Your task to perform on an android device: Check the weather Image 0: 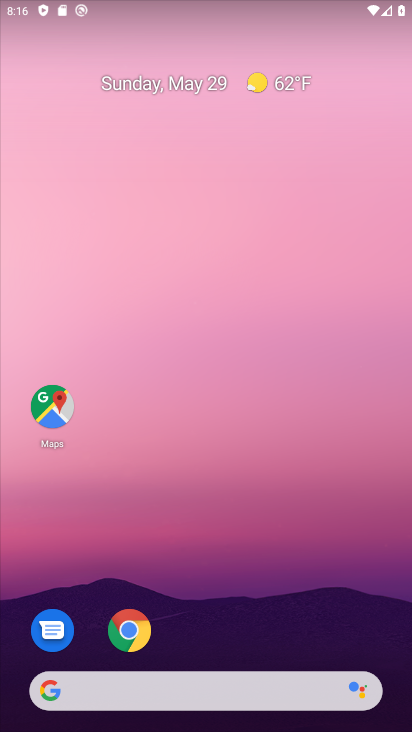
Step 0: click (294, 78)
Your task to perform on an android device: Check the weather Image 1: 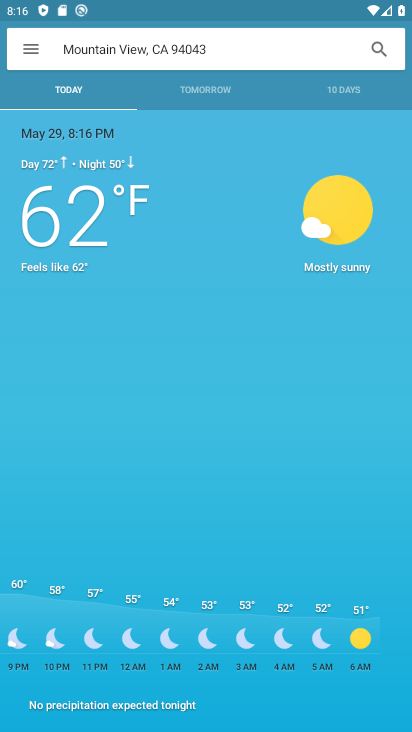
Step 1: task complete